Your task to perform on an android device: Search for "lenovo thinkpad" on walmart.com, select the first entry, add it to the cart, then select checkout. Image 0: 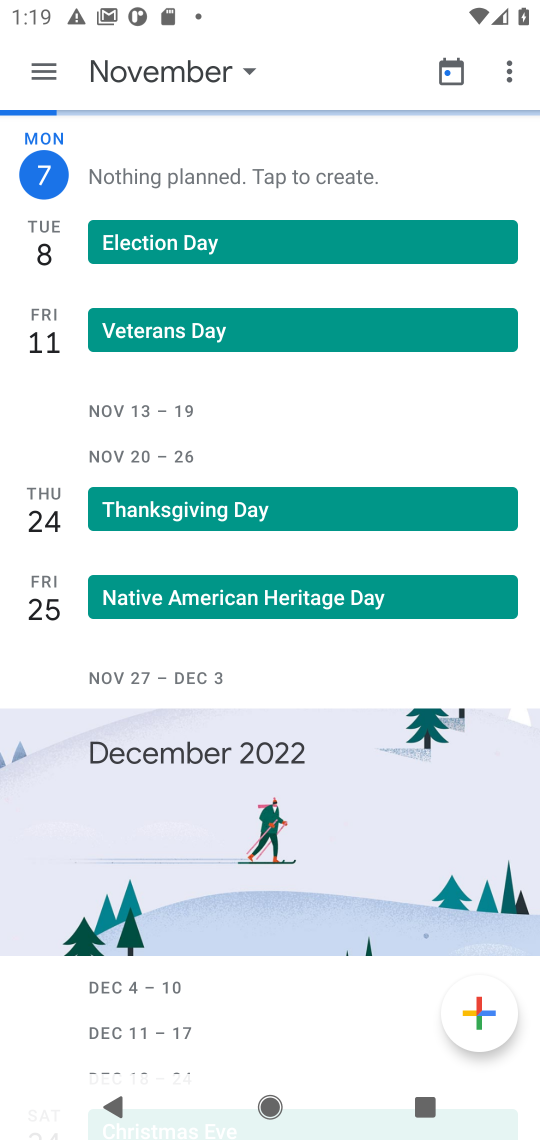
Step 0: press home button
Your task to perform on an android device: Search for "lenovo thinkpad" on walmart.com, select the first entry, add it to the cart, then select checkout. Image 1: 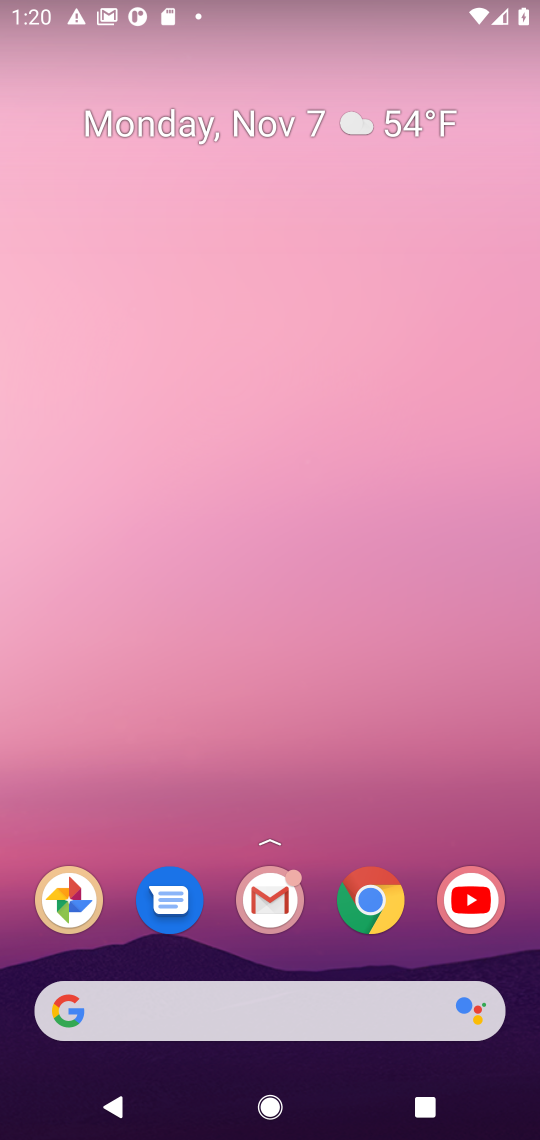
Step 1: click (328, 1037)
Your task to perform on an android device: Search for "lenovo thinkpad" on walmart.com, select the first entry, add it to the cart, then select checkout. Image 2: 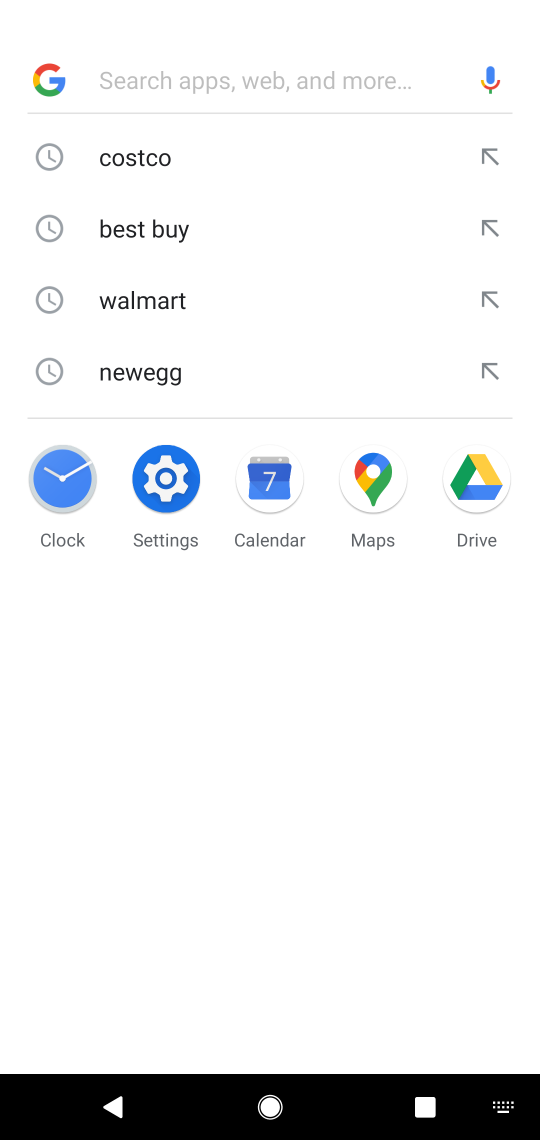
Step 2: click (222, 298)
Your task to perform on an android device: Search for "lenovo thinkpad" on walmart.com, select the first entry, add it to the cart, then select checkout. Image 3: 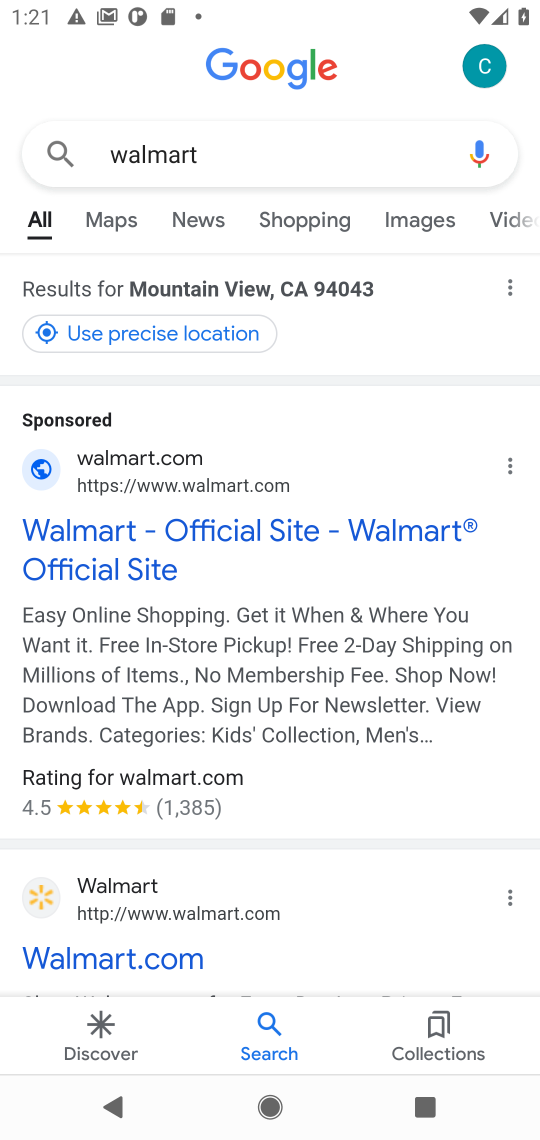
Step 3: click (141, 526)
Your task to perform on an android device: Search for "lenovo thinkpad" on walmart.com, select the first entry, add it to the cart, then select checkout. Image 4: 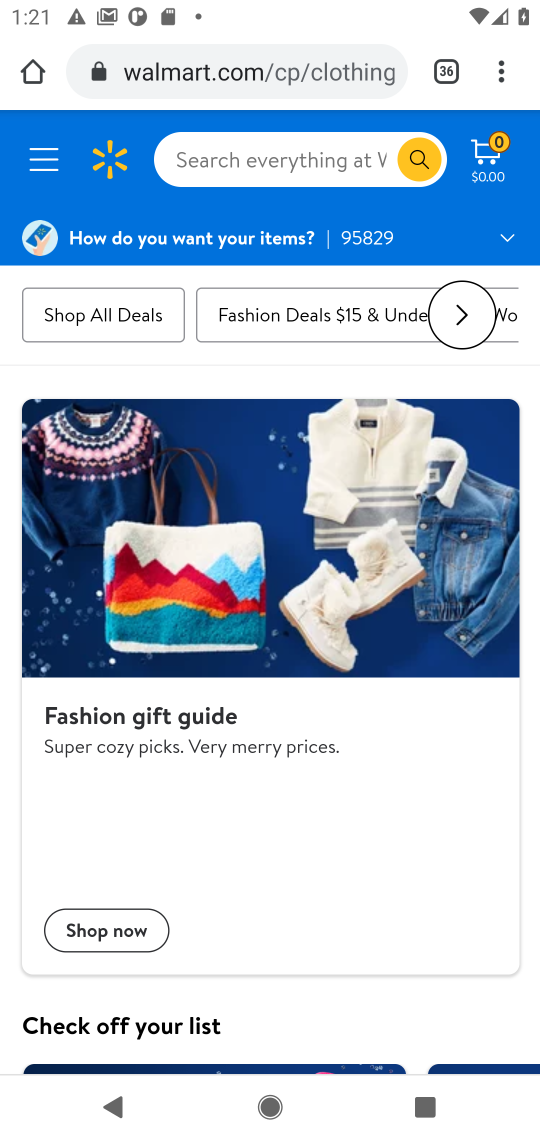
Step 4: task complete